Your task to perform on an android device: Go to display settings Image 0: 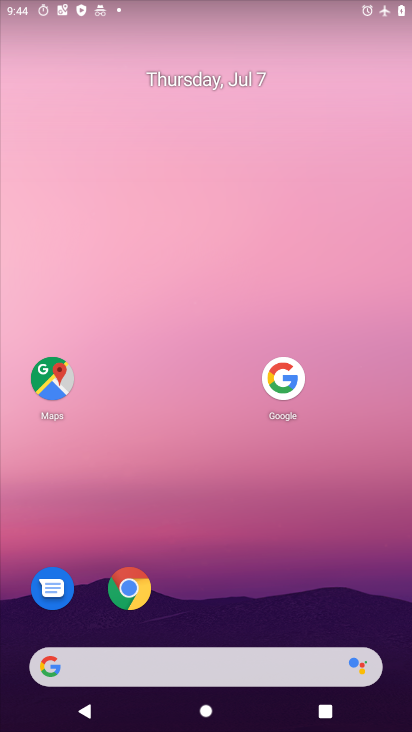
Step 0: drag from (274, 381) to (317, 126)
Your task to perform on an android device: Go to display settings Image 1: 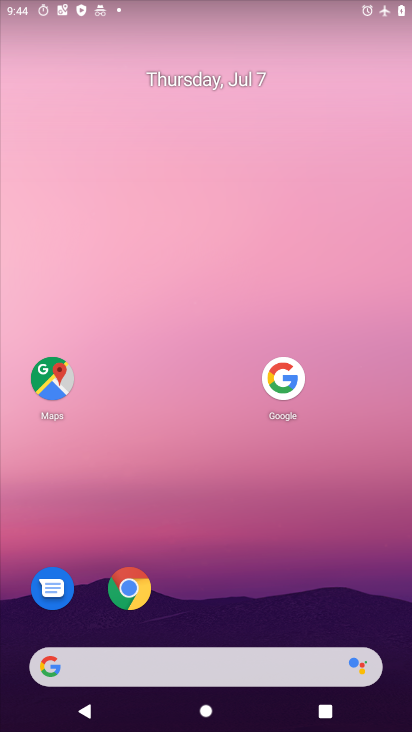
Step 1: drag from (198, 662) to (296, 34)
Your task to perform on an android device: Go to display settings Image 2: 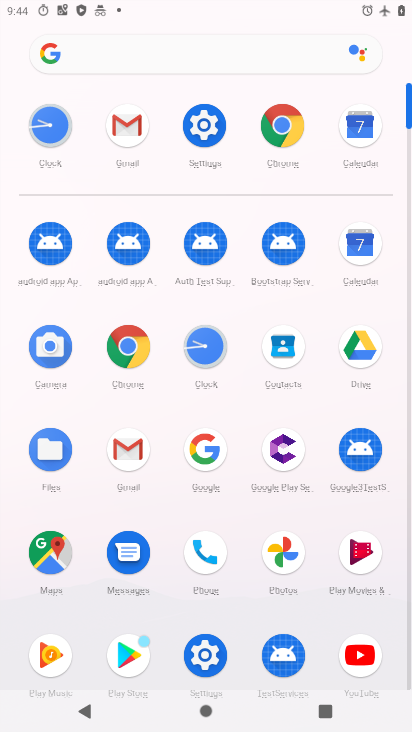
Step 2: click (207, 131)
Your task to perform on an android device: Go to display settings Image 3: 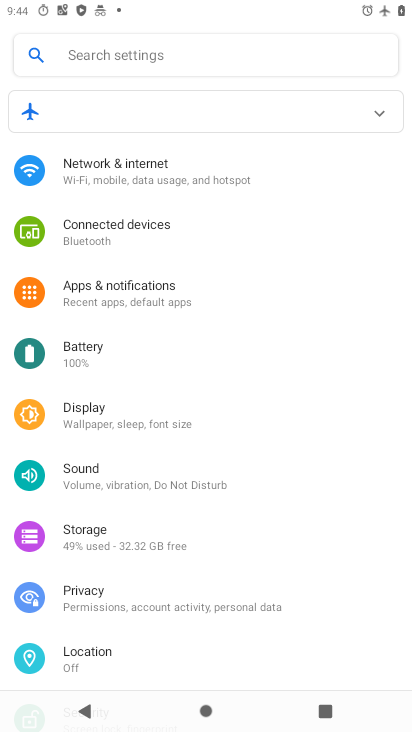
Step 3: click (134, 417)
Your task to perform on an android device: Go to display settings Image 4: 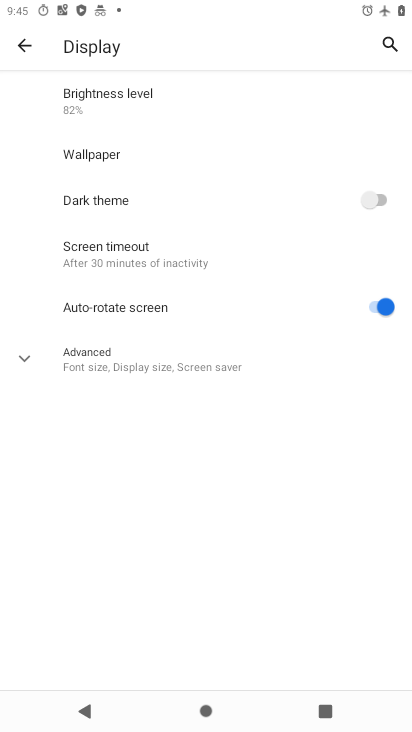
Step 4: task complete